Your task to perform on an android device: create a new album in the google photos Image 0: 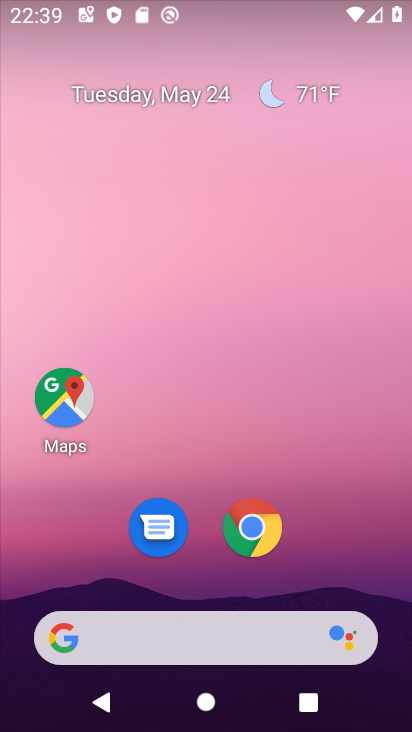
Step 0: drag from (198, 592) to (199, 131)
Your task to perform on an android device: create a new album in the google photos Image 1: 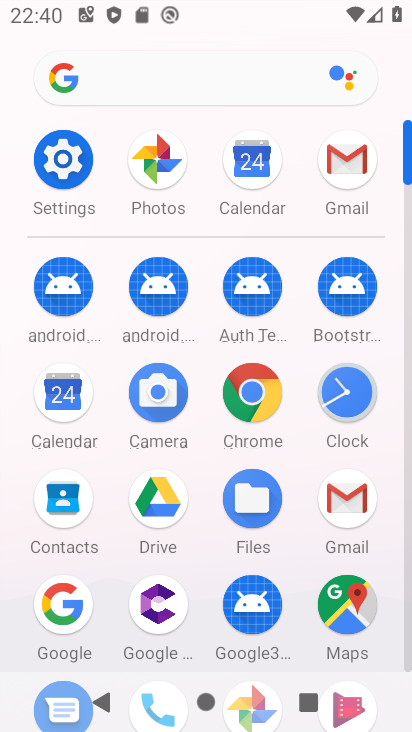
Step 1: drag from (293, 559) to (288, 270)
Your task to perform on an android device: create a new album in the google photos Image 2: 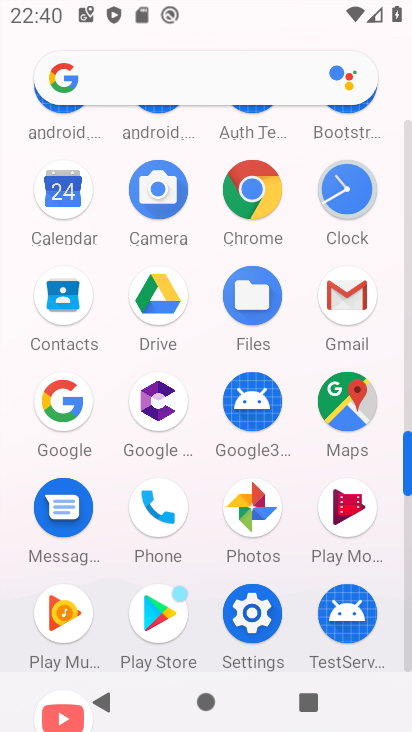
Step 2: click (258, 508)
Your task to perform on an android device: create a new album in the google photos Image 3: 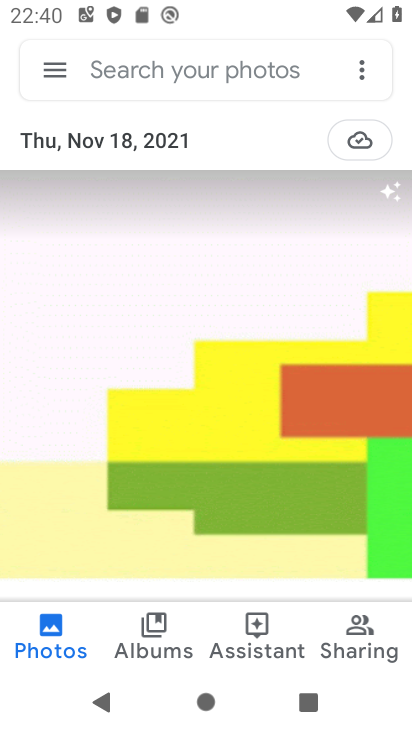
Step 3: click (167, 639)
Your task to perform on an android device: create a new album in the google photos Image 4: 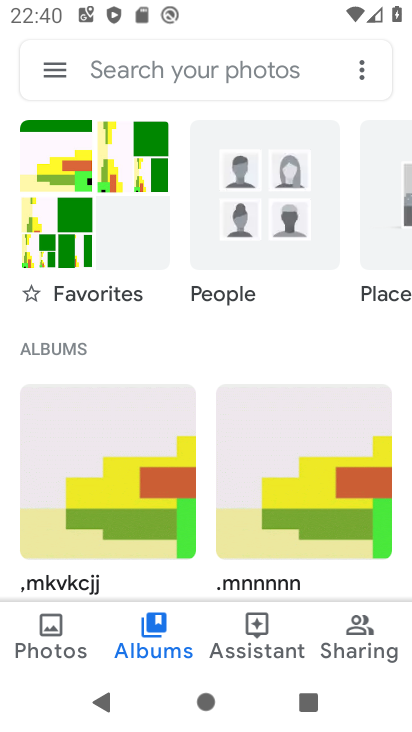
Step 4: click (356, 77)
Your task to perform on an android device: create a new album in the google photos Image 5: 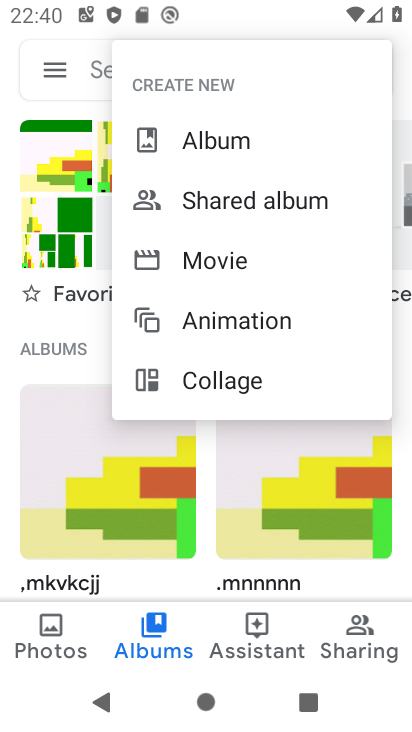
Step 5: click (272, 147)
Your task to perform on an android device: create a new album in the google photos Image 6: 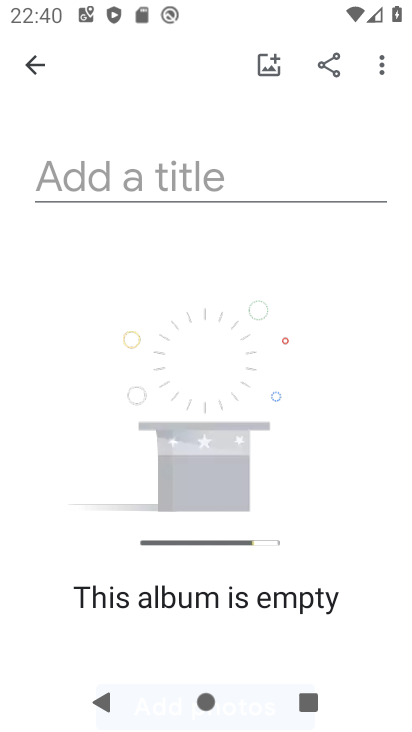
Step 6: click (75, 186)
Your task to perform on an android device: create a new album in the google photos Image 7: 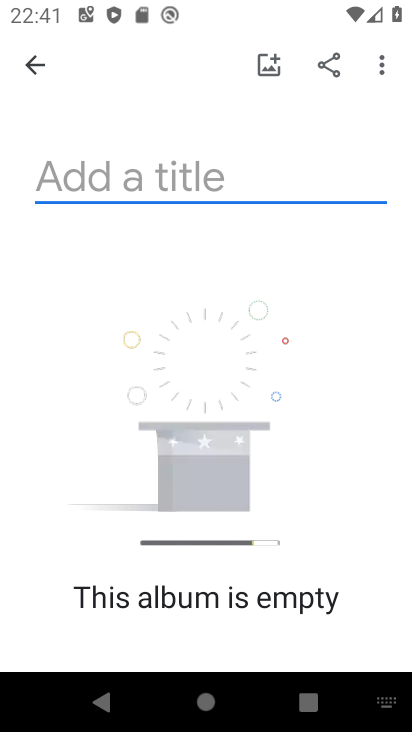
Step 7: type "asdfghjkl"
Your task to perform on an android device: create a new album in the google photos Image 8: 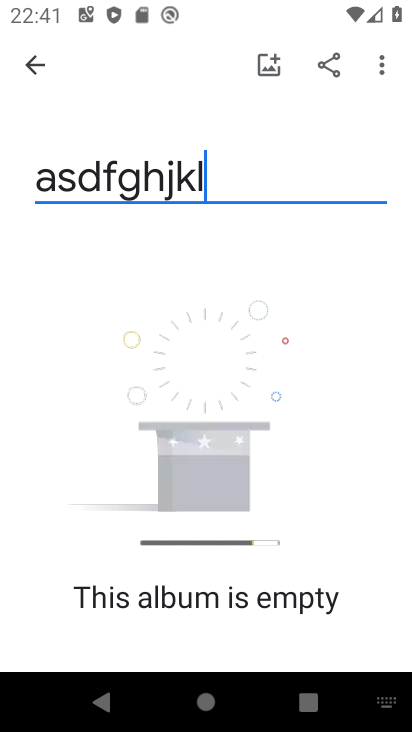
Step 8: click (255, 62)
Your task to perform on an android device: create a new album in the google photos Image 9: 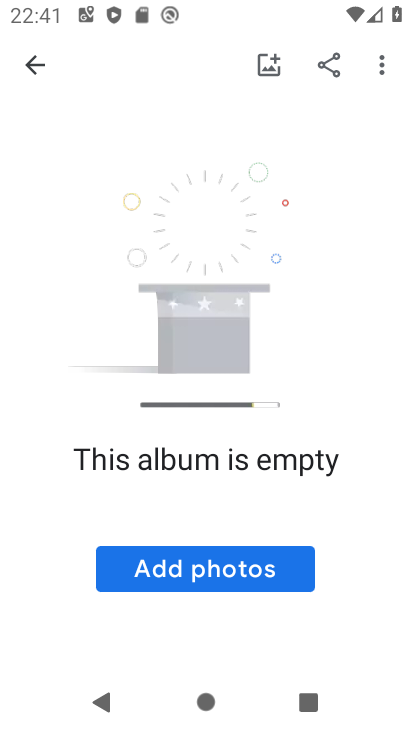
Step 9: click (214, 567)
Your task to perform on an android device: create a new album in the google photos Image 10: 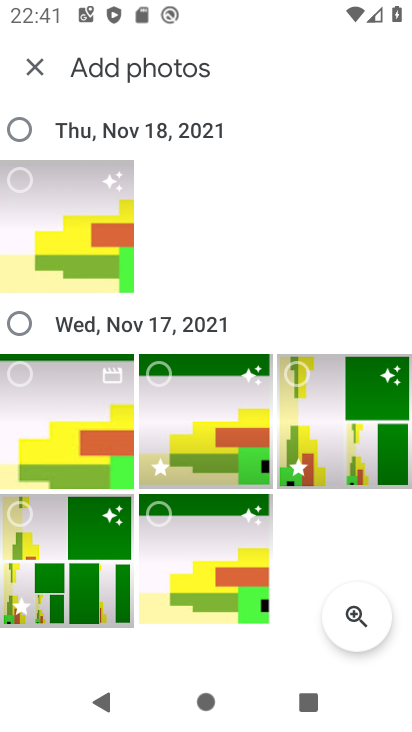
Step 10: click (37, 231)
Your task to perform on an android device: create a new album in the google photos Image 11: 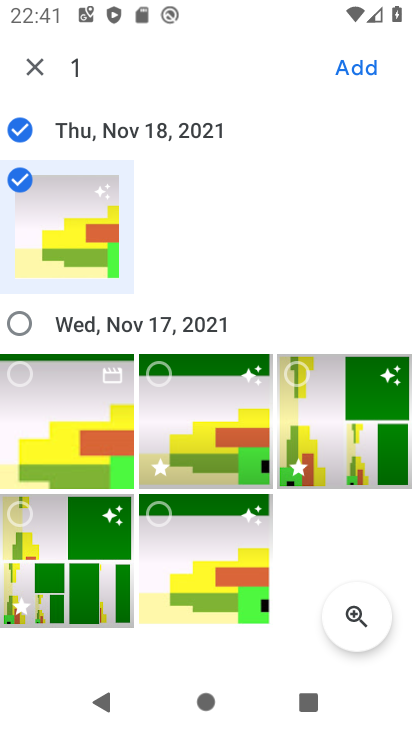
Step 11: click (344, 69)
Your task to perform on an android device: create a new album in the google photos Image 12: 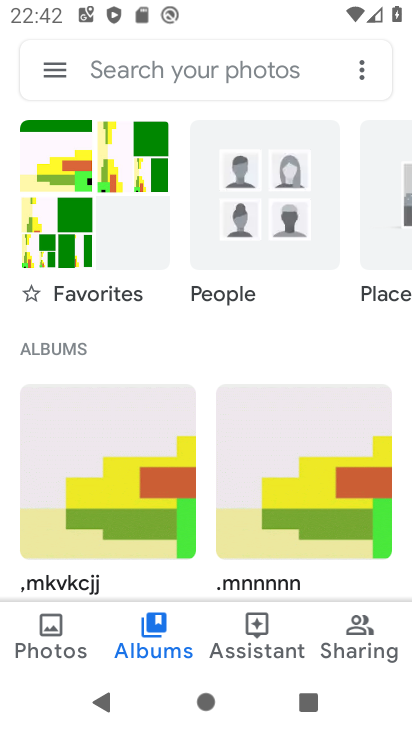
Step 12: task complete